Your task to perform on an android device: Show me popular games on the Play Store Image 0: 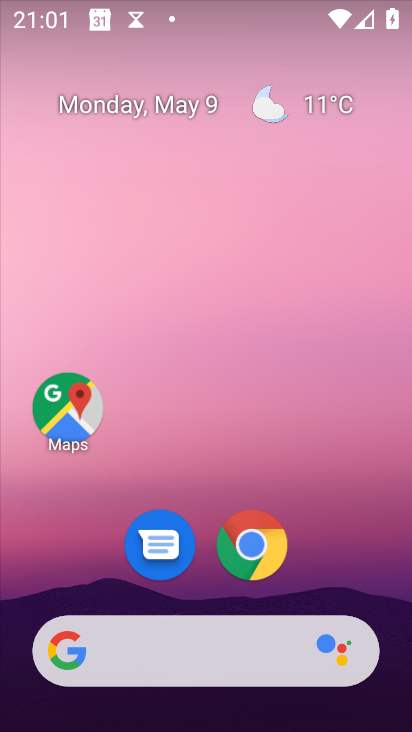
Step 0: drag from (215, 722) to (164, 221)
Your task to perform on an android device: Show me popular games on the Play Store Image 1: 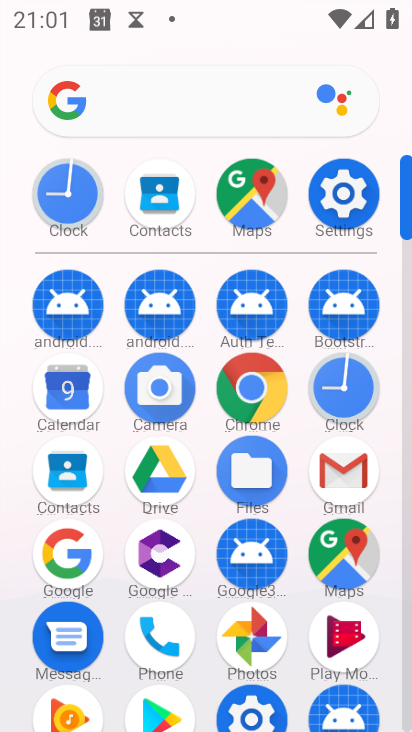
Step 1: click (168, 700)
Your task to perform on an android device: Show me popular games on the Play Store Image 2: 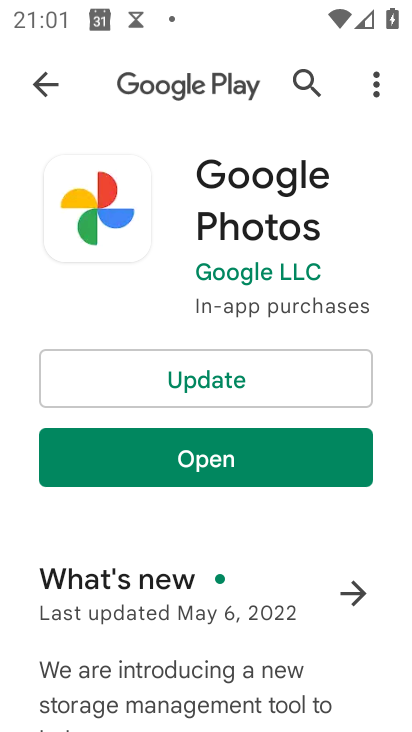
Step 2: click (44, 83)
Your task to perform on an android device: Show me popular games on the Play Store Image 3: 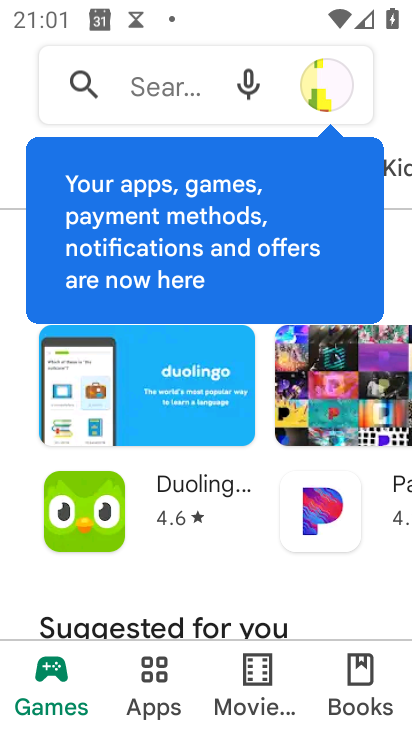
Step 3: drag from (236, 596) to (239, 284)
Your task to perform on an android device: Show me popular games on the Play Store Image 4: 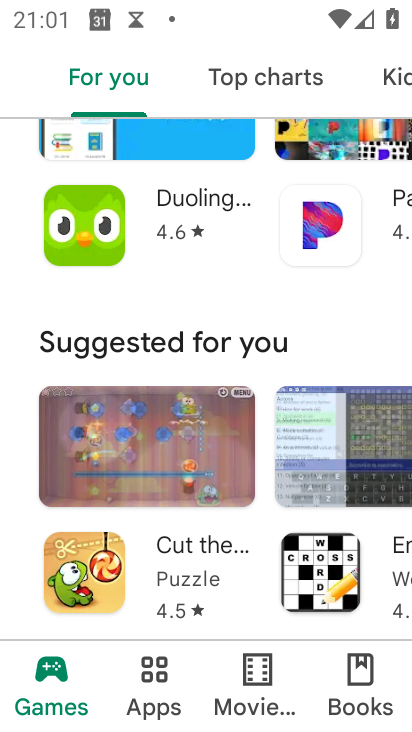
Step 4: drag from (248, 632) to (257, 267)
Your task to perform on an android device: Show me popular games on the Play Store Image 5: 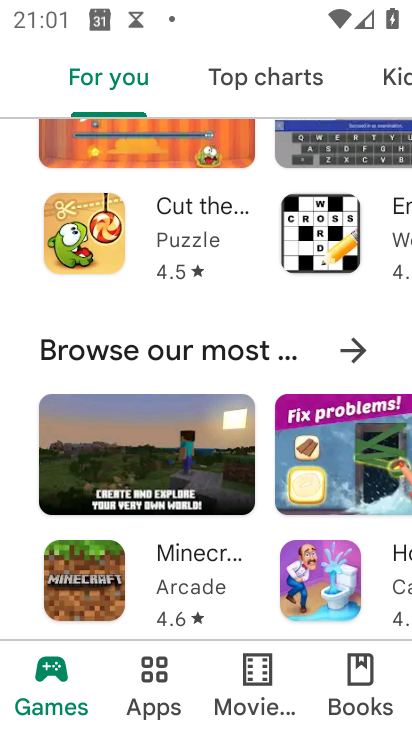
Step 5: click (348, 338)
Your task to perform on an android device: Show me popular games on the Play Store Image 6: 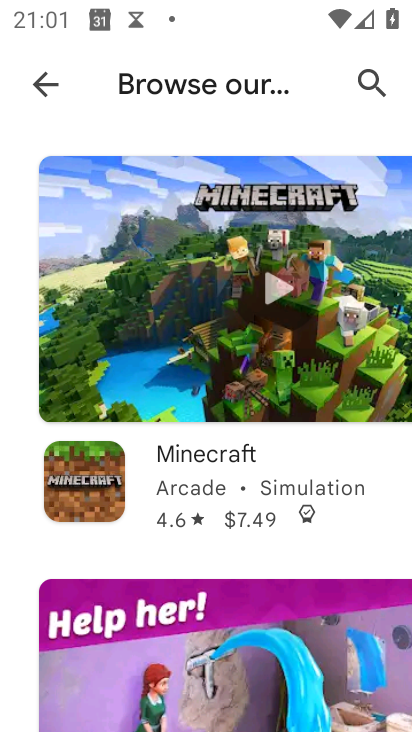
Step 6: task complete